Your task to perform on an android device: turn on translation in the chrome app Image 0: 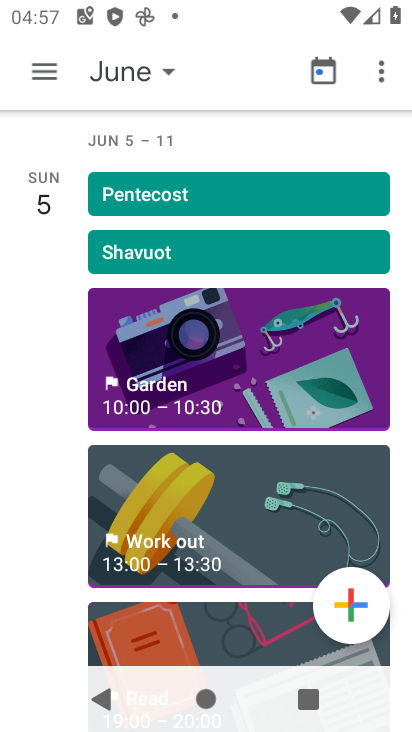
Step 0: press home button
Your task to perform on an android device: turn on translation in the chrome app Image 1: 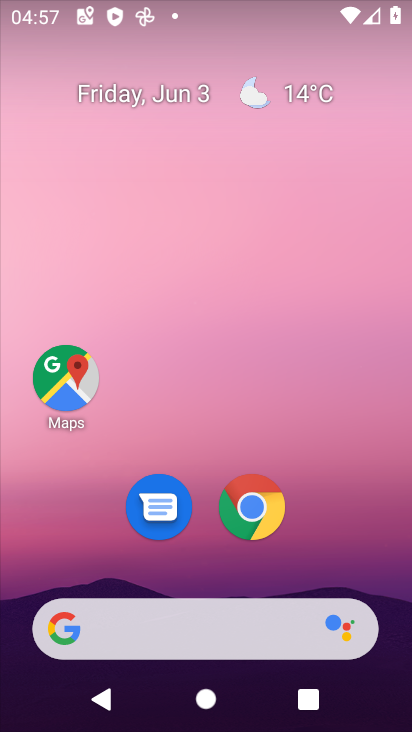
Step 1: click (255, 510)
Your task to perform on an android device: turn on translation in the chrome app Image 2: 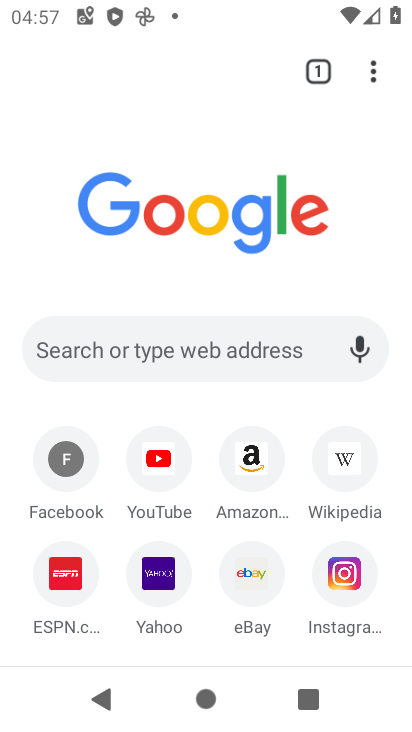
Step 2: drag from (372, 75) to (179, 498)
Your task to perform on an android device: turn on translation in the chrome app Image 3: 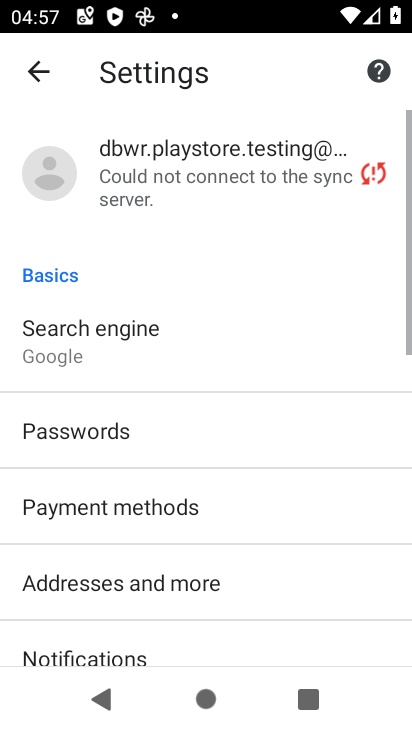
Step 3: drag from (252, 651) to (253, 208)
Your task to perform on an android device: turn on translation in the chrome app Image 4: 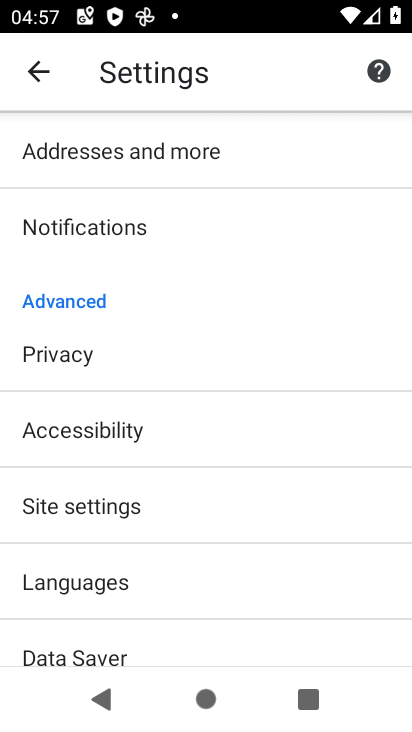
Step 4: click (154, 580)
Your task to perform on an android device: turn on translation in the chrome app Image 5: 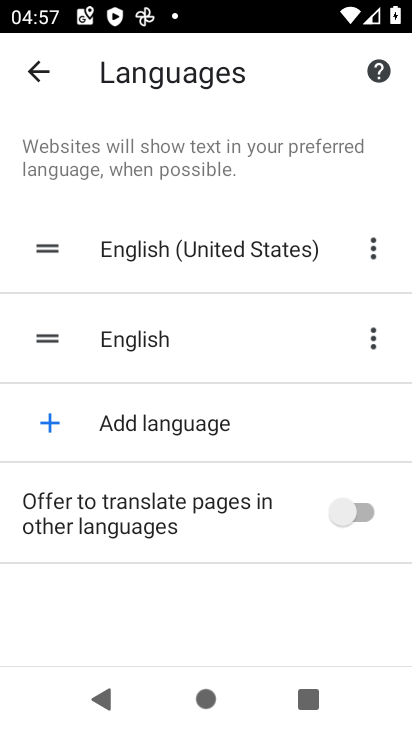
Step 5: click (364, 506)
Your task to perform on an android device: turn on translation in the chrome app Image 6: 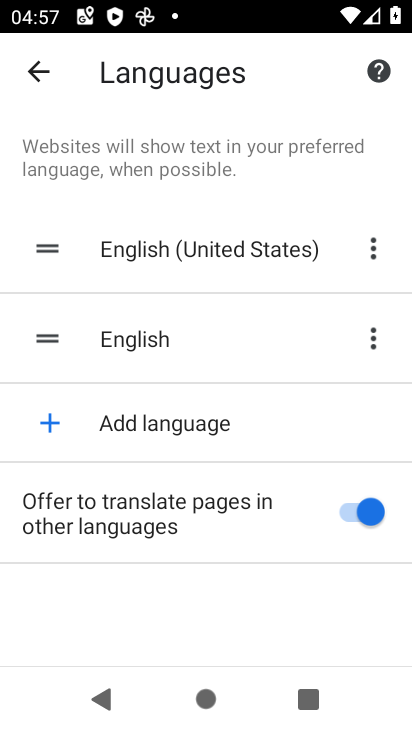
Step 6: task complete